Your task to perform on an android device: turn on the 24-hour format for clock Image 0: 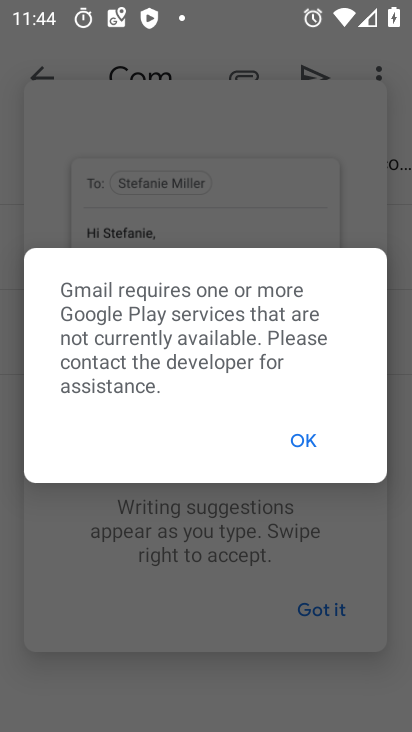
Step 0: press home button
Your task to perform on an android device: turn on the 24-hour format for clock Image 1: 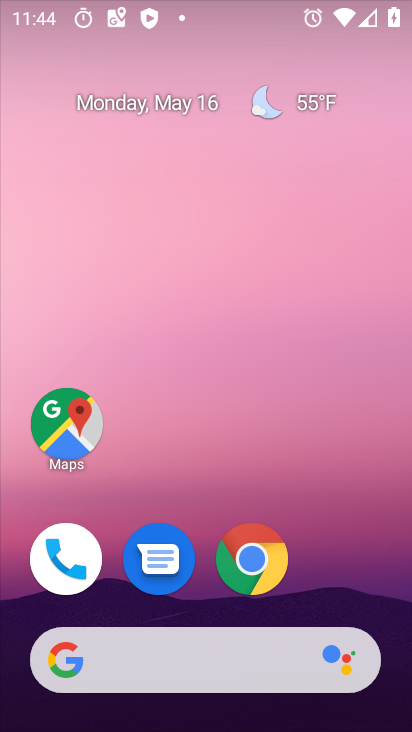
Step 1: drag from (325, 538) to (275, 29)
Your task to perform on an android device: turn on the 24-hour format for clock Image 2: 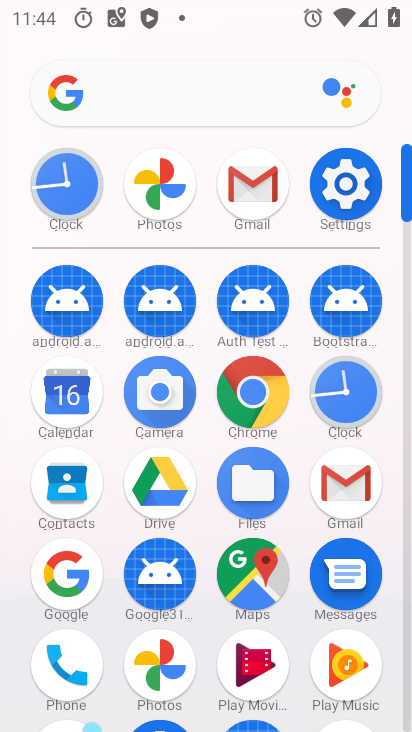
Step 2: click (347, 394)
Your task to perform on an android device: turn on the 24-hour format for clock Image 3: 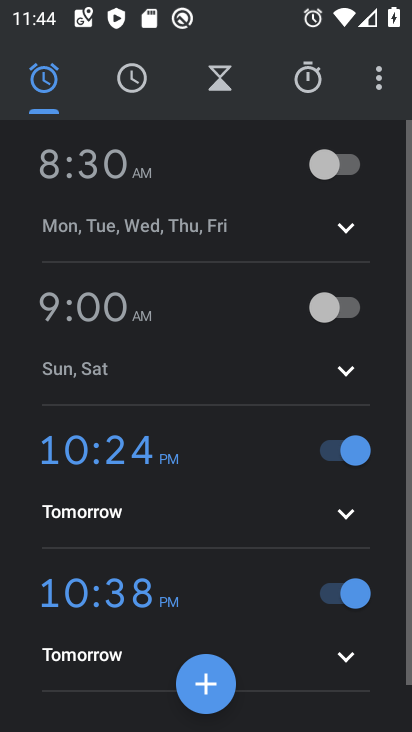
Step 3: drag from (375, 68) to (258, 149)
Your task to perform on an android device: turn on the 24-hour format for clock Image 4: 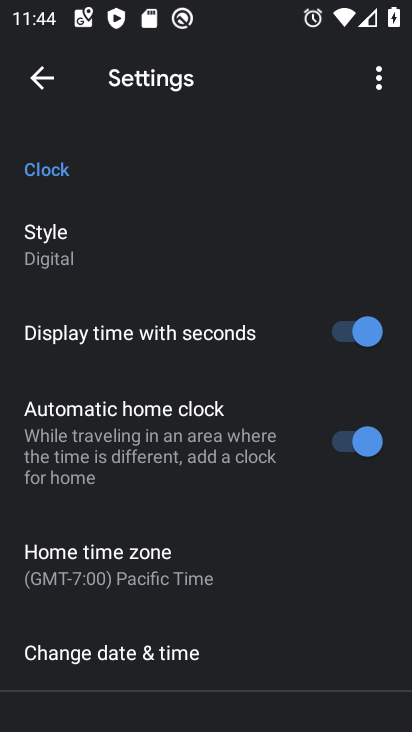
Step 4: drag from (220, 606) to (272, 233)
Your task to perform on an android device: turn on the 24-hour format for clock Image 5: 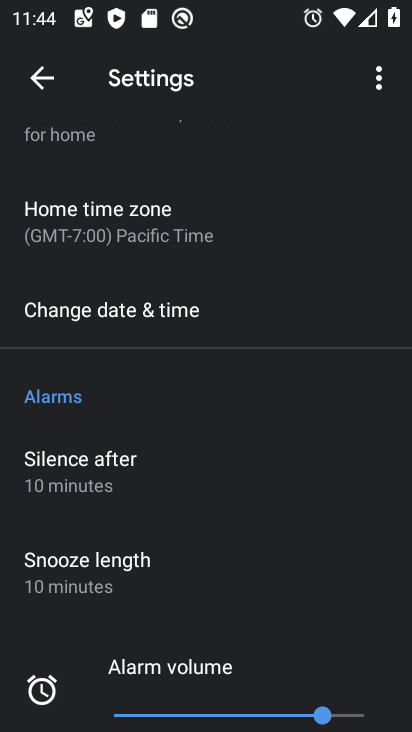
Step 5: click (182, 321)
Your task to perform on an android device: turn on the 24-hour format for clock Image 6: 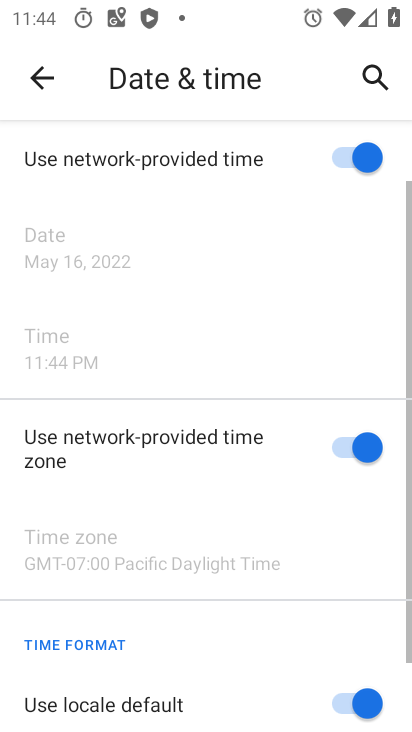
Step 6: drag from (223, 643) to (241, 179)
Your task to perform on an android device: turn on the 24-hour format for clock Image 7: 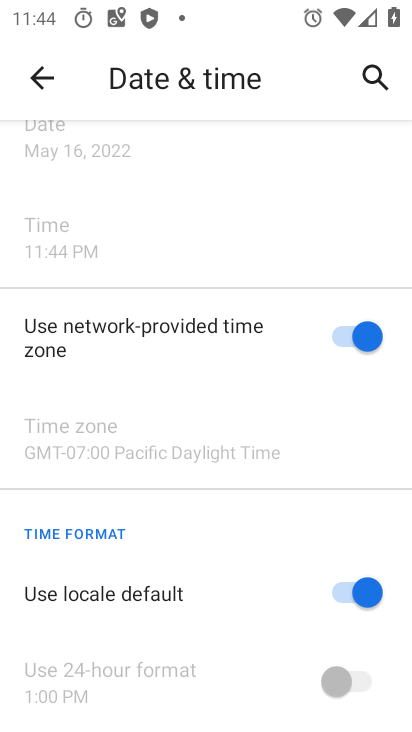
Step 7: click (343, 588)
Your task to perform on an android device: turn on the 24-hour format for clock Image 8: 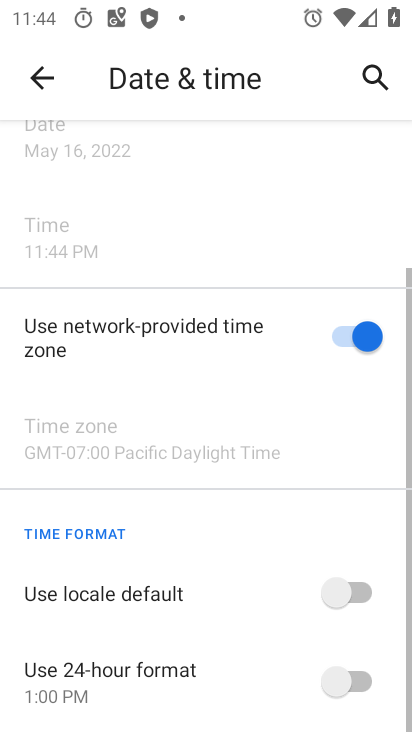
Step 8: click (345, 702)
Your task to perform on an android device: turn on the 24-hour format for clock Image 9: 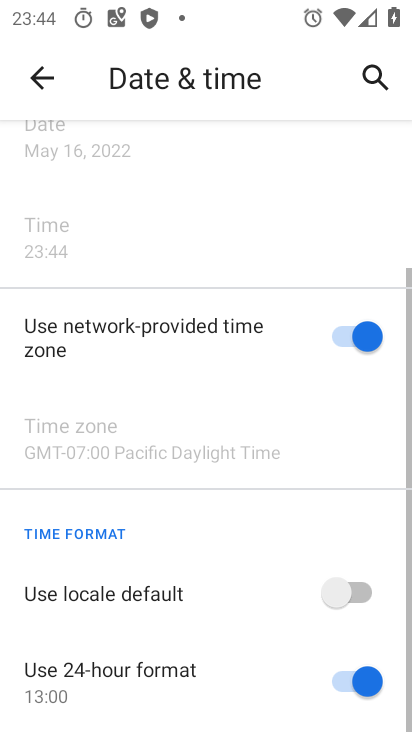
Step 9: task complete